Your task to perform on an android device: open the mobile data screen to see how much data has been used Image 0: 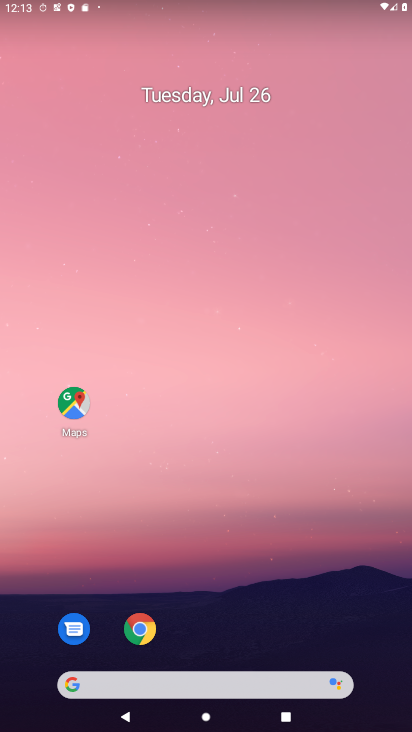
Step 0: drag from (214, 517) to (190, 30)
Your task to perform on an android device: open the mobile data screen to see how much data has been used Image 1: 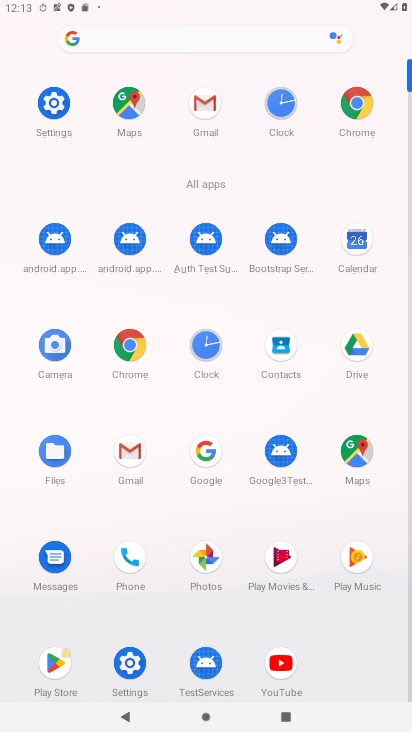
Step 1: drag from (219, 170) to (217, 54)
Your task to perform on an android device: open the mobile data screen to see how much data has been used Image 2: 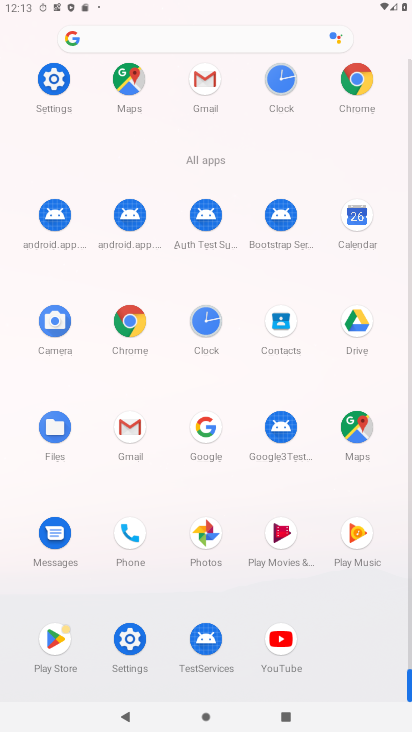
Step 2: drag from (211, 634) to (226, 111)
Your task to perform on an android device: open the mobile data screen to see how much data has been used Image 3: 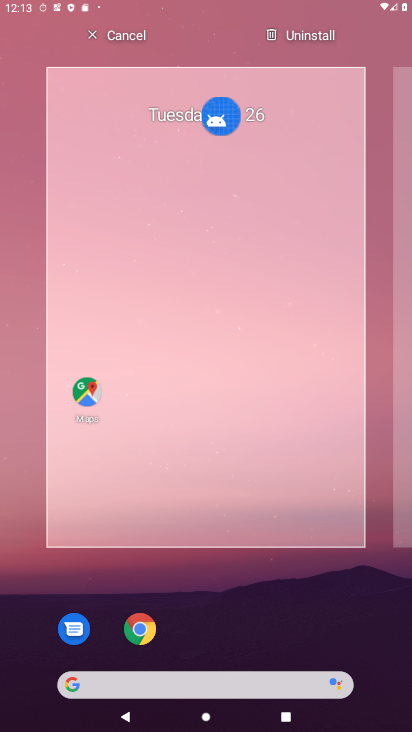
Step 3: click (200, 6)
Your task to perform on an android device: open the mobile data screen to see how much data has been used Image 4: 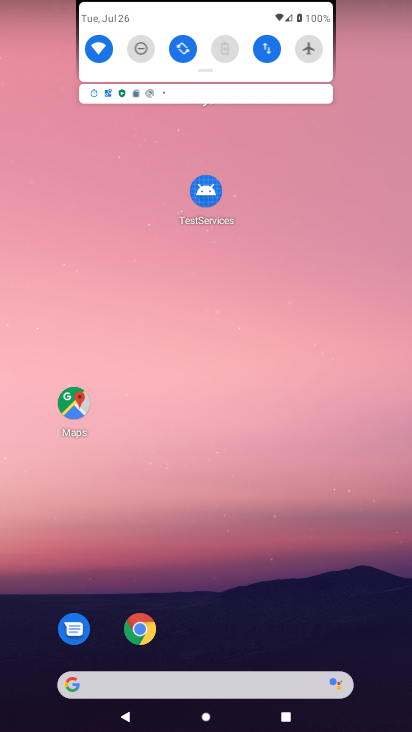
Step 4: click (195, 32)
Your task to perform on an android device: open the mobile data screen to see how much data has been used Image 5: 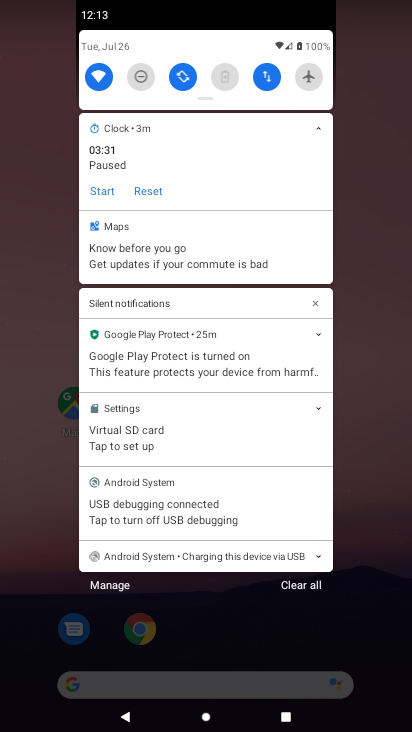
Step 5: press back button
Your task to perform on an android device: open the mobile data screen to see how much data has been used Image 6: 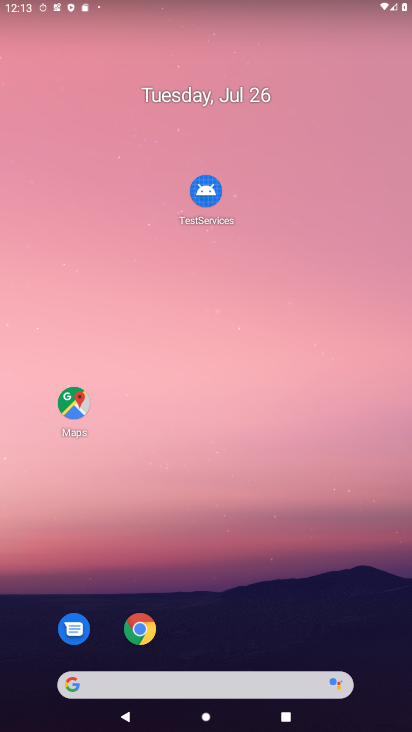
Step 6: click (265, 110)
Your task to perform on an android device: open the mobile data screen to see how much data has been used Image 7: 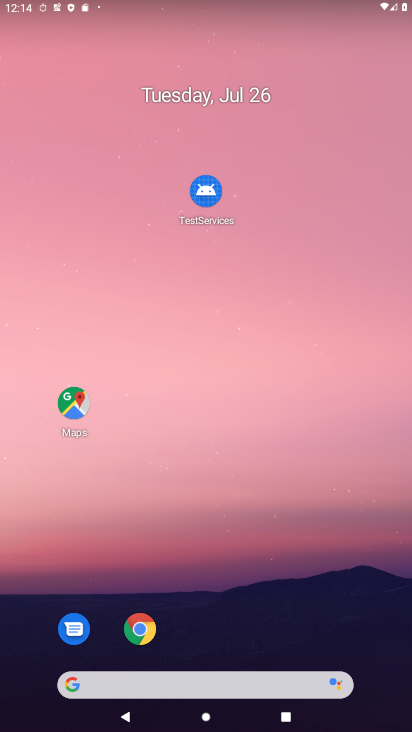
Step 7: click (152, 85)
Your task to perform on an android device: open the mobile data screen to see how much data has been used Image 8: 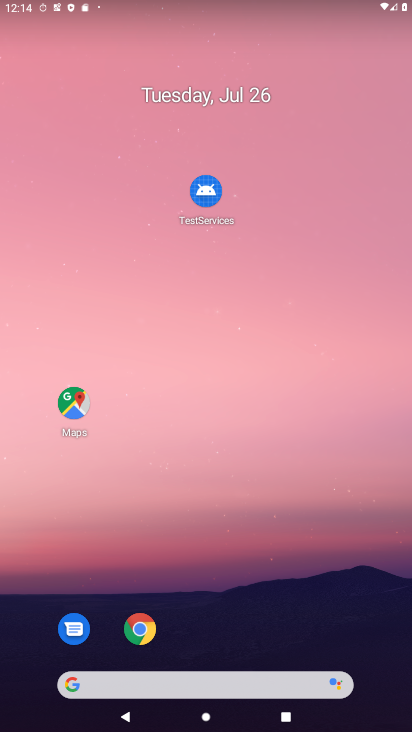
Step 8: drag from (261, 270) to (271, 3)
Your task to perform on an android device: open the mobile data screen to see how much data has been used Image 9: 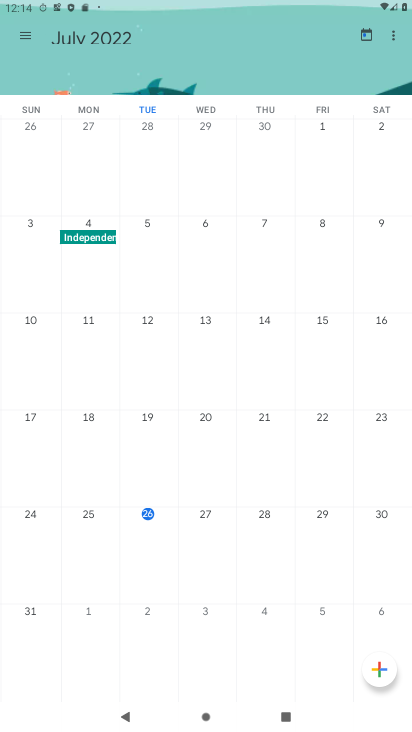
Step 9: press back button
Your task to perform on an android device: open the mobile data screen to see how much data has been used Image 10: 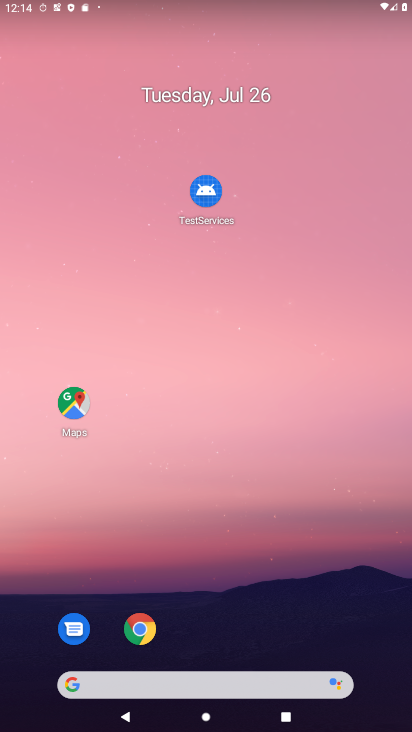
Step 10: drag from (203, 618) to (185, 108)
Your task to perform on an android device: open the mobile data screen to see how much data has been used Image 11: 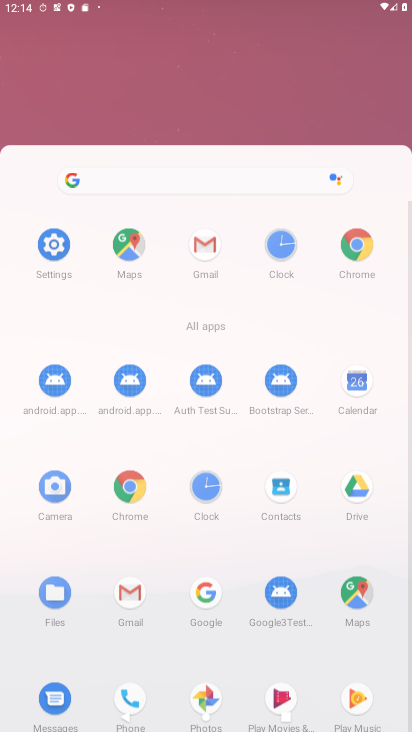
Step 11: drag from (259, 449) to (256, 115)
Your task to perform on an android device: open the mobile data screen to see how much data has been used Image 12: 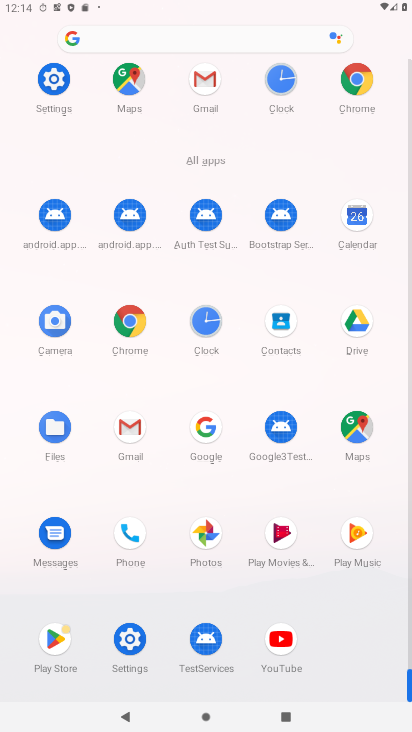
Step 12: drag from (200, 482) to (190, 89)
Your task to perform on an android device: open the mobile data screen to see how much data has been used Image 13: 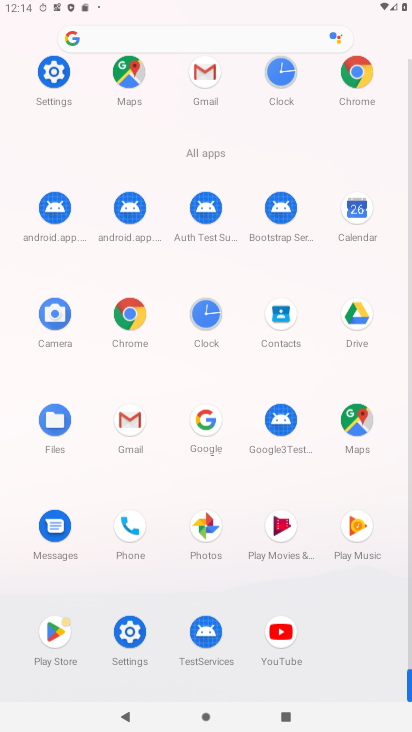
Step 13: drag from (186, 462) to (142, 89)
Your task to perform on an android device: open the mobile data screen to see how much data has been used Image 14: 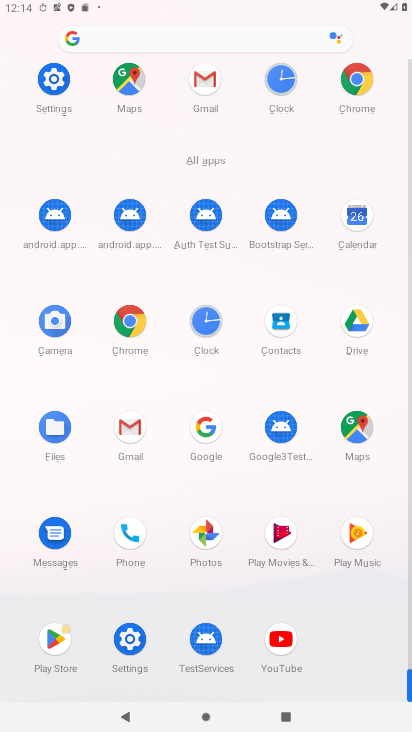
Step 14: drag from (245, 373) to (248, 117)
Your task to perform on an android device: open the mobile data screen to see how much data has been used Image 15: 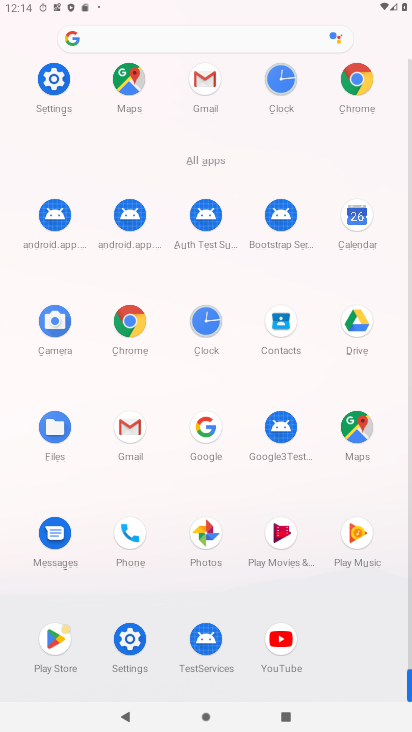
Step 15: click (122, 650)
Your task to perform on an android device: open the mobile data screen to see how much data has been used Image 16: 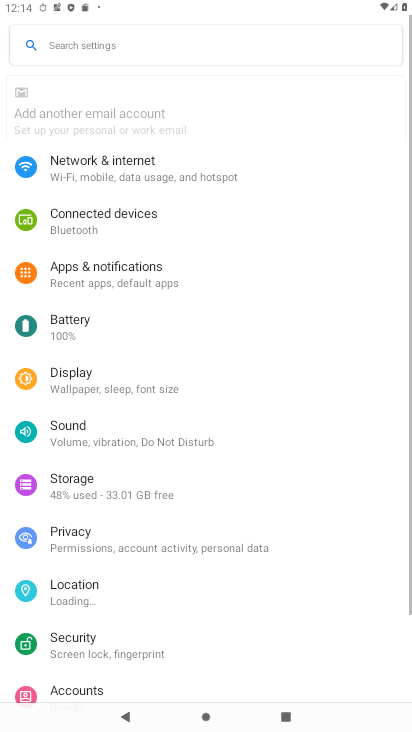
Step 16: click (122, 648)
Your task to perform on an android device: open the mobile data screen to see how much data has been used Image 17: 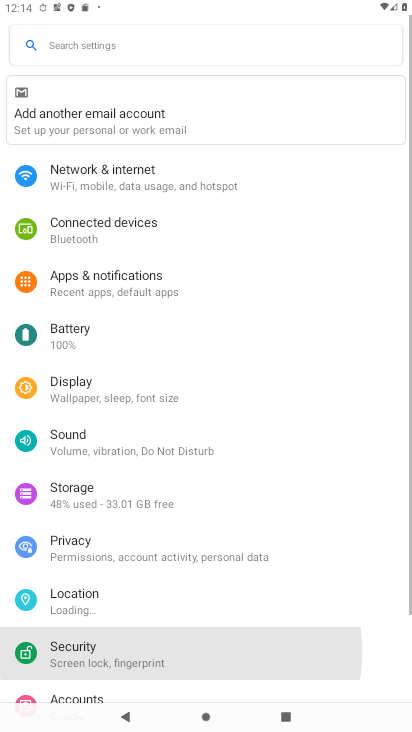
Step 17: click (125, 646)
Your task to perform on an android device: open the mobile data screen to see how much data has been used Image 18: 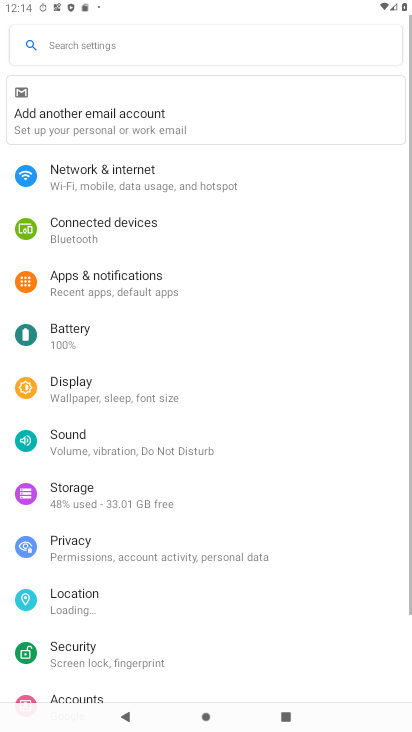
Step 18: click (127, 644)
Your task to perform on an android device: open the mobile data screen to see how much data has been used Image 19: 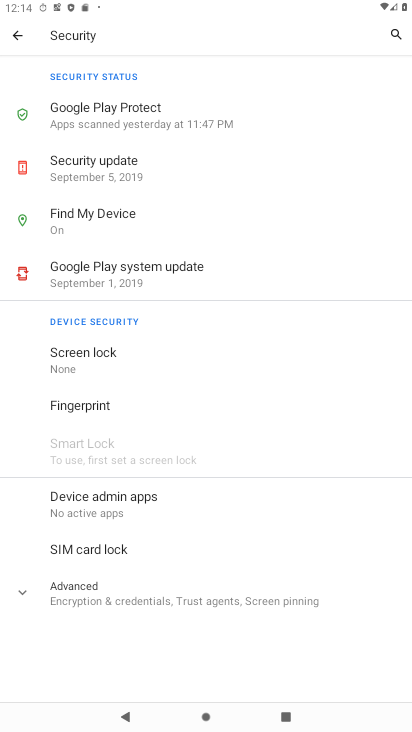
Step 19: click (13, 41)
Your task to perform on an android device: open the mobile data screen to see how much data has been used Image 20: 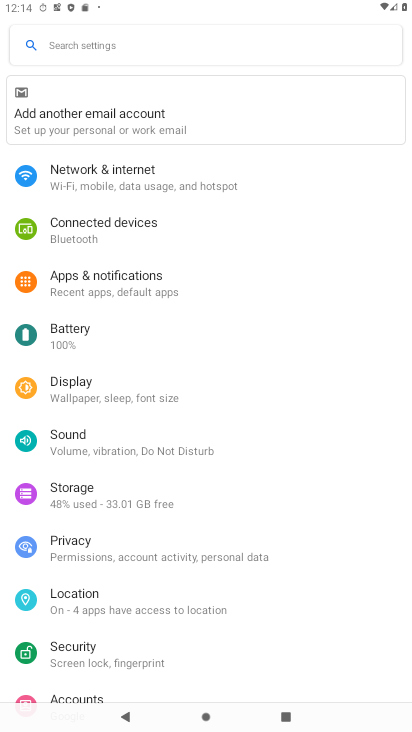
Step 20: click (113, 170)
Your task to perform on an android device: open the mobile data screen to see how much data has been used Image 21: 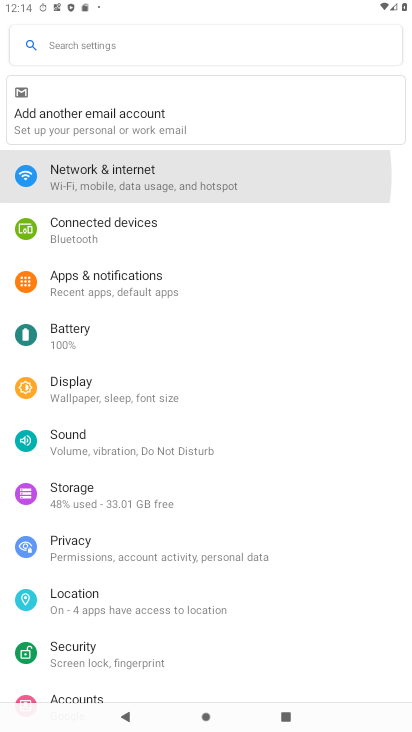
Step 21: click (113, 166)
Your task to perform on an android device: open the mobile data screen to see how much data has been used Image 22: 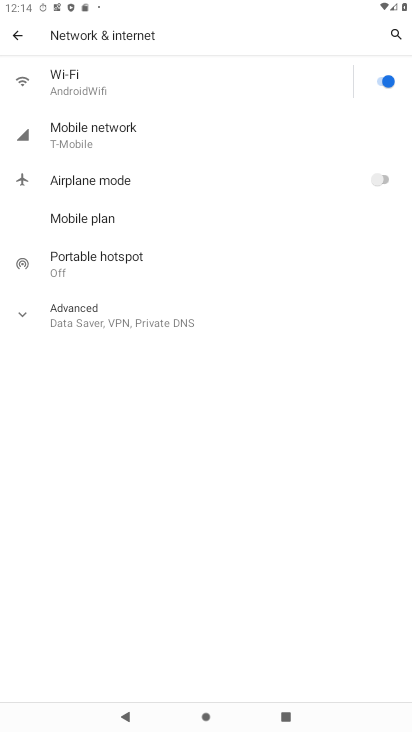
Step 22: task complete